Your task to perform on an android device: change the clock display to analog Image 0: 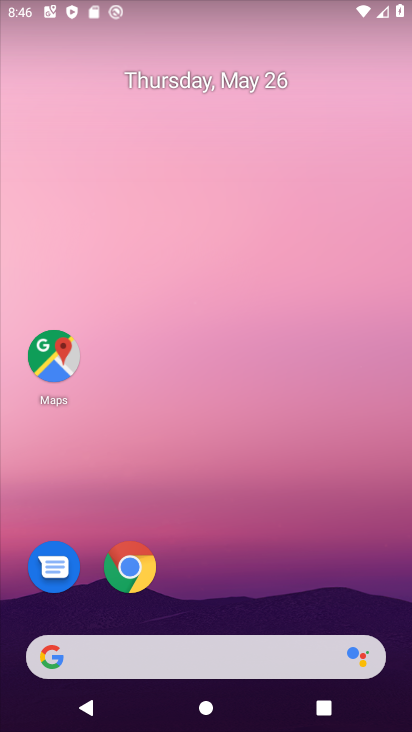
Step 0: drag from (215, 655) to (368, 5)
Your task to perform on an android device: change the clock display to analog Image 1: 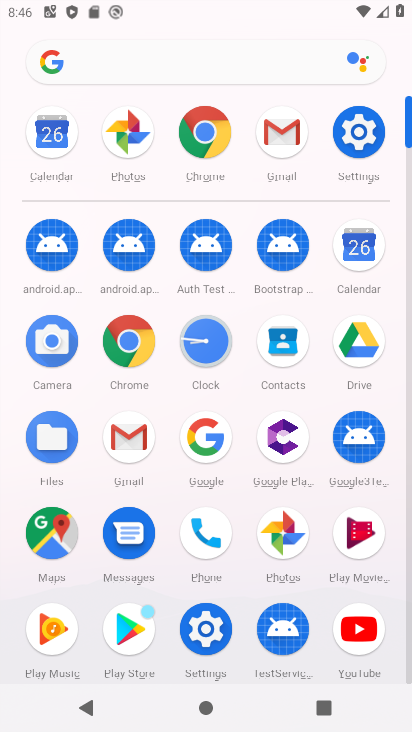
Step 1: click (203, 348)
Your task to perform on an android device: change the clock display to analog Image 2: 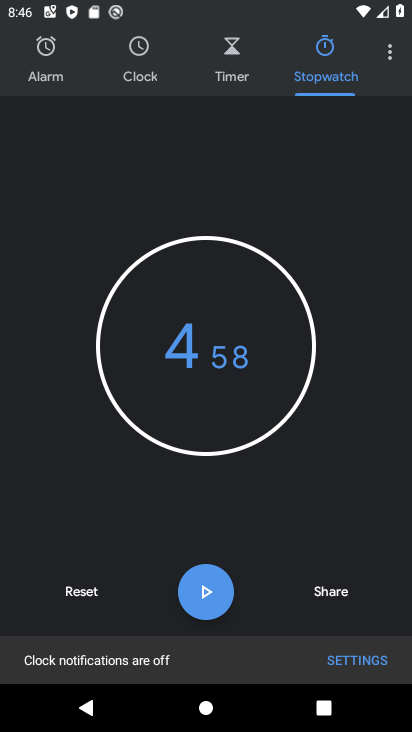
Step 2: click (384, 50)
Your task to perform on an android device: change the clock display to analog Image 3: 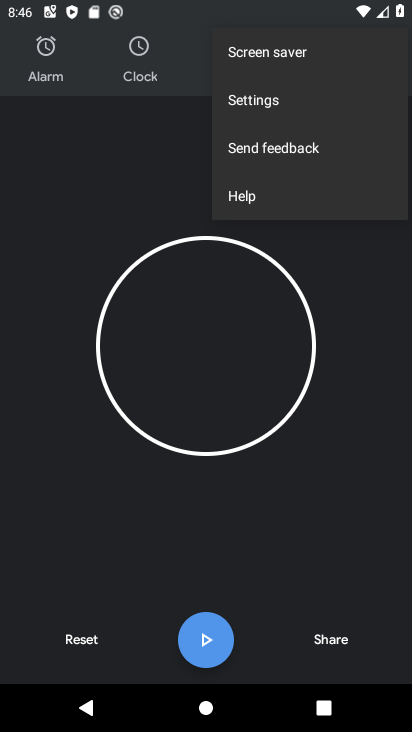
Step 3: click (272, 103)
Your task to perform on an android device: change the clock display to analog Image 4: 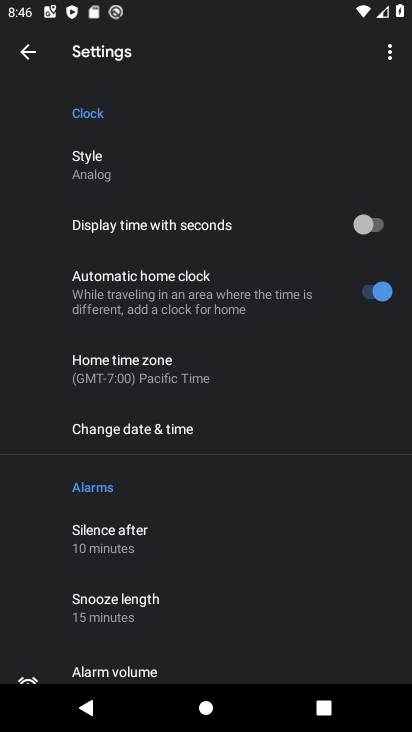
Step 4: task complete